Your task to perform on an android device: Go to network settings Image 0: 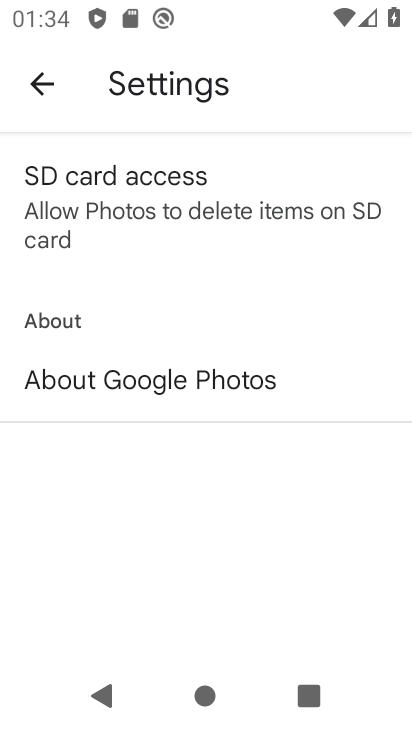
Step 0: press home button
Your task to perform on an android device: Go to network settings Image 1: 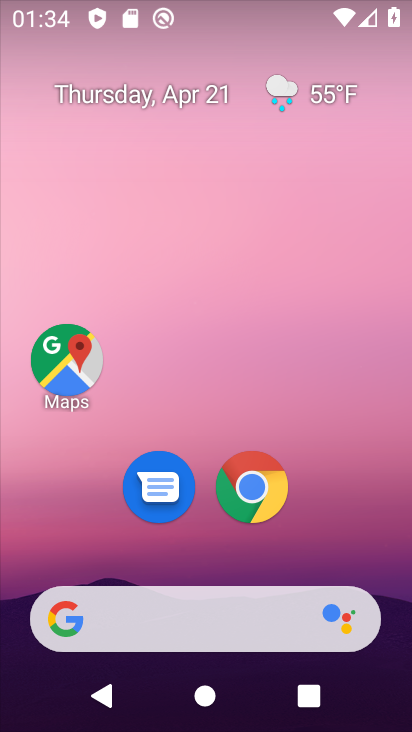
Step 1: drag from (330, 582) to (354, 187)
Your task to perform on an android device: Go to network settings Image 2: 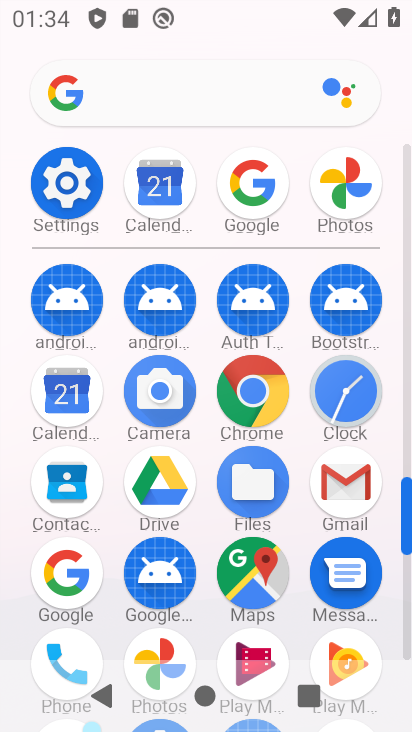
Step 2: click (73, 205)
Your task to perform on an android device: Go to network settings Image 3: 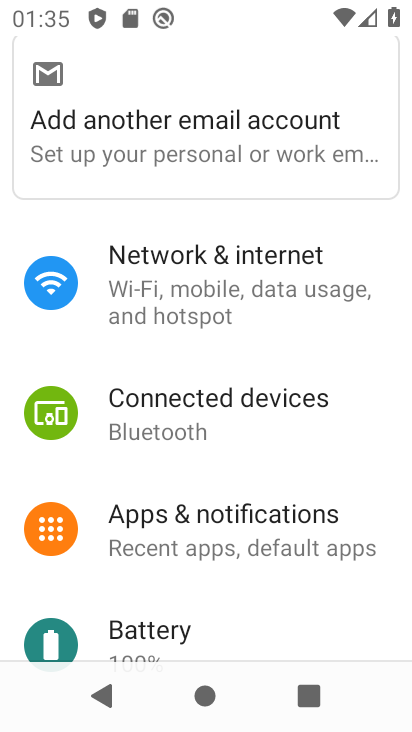
Step 3: click (129, 279)
Your task to perform on an android device: Go to network settings Image 4: 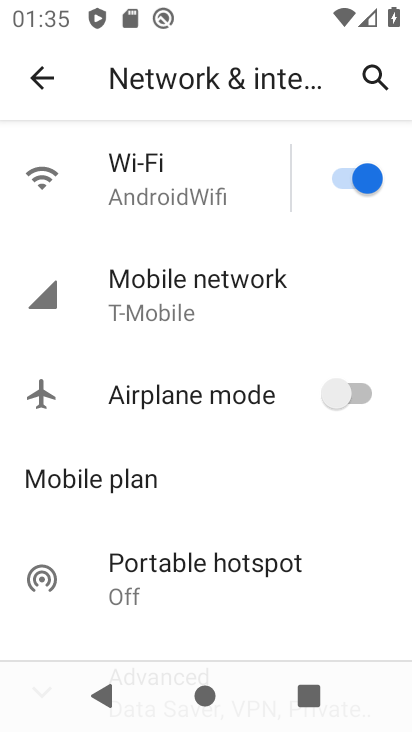
Step 4: click (131, 279)
Your task to perform on an android device: Go to network settings Image 5: 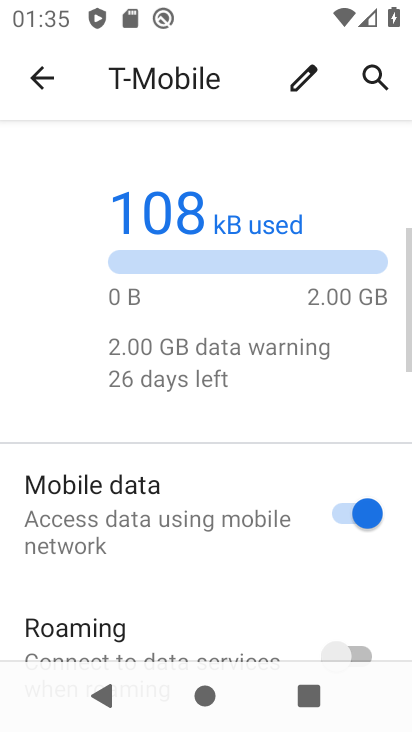
Step 5: task complete